Your task to perform on an android device: allow cookies in the chrome app Image 0: 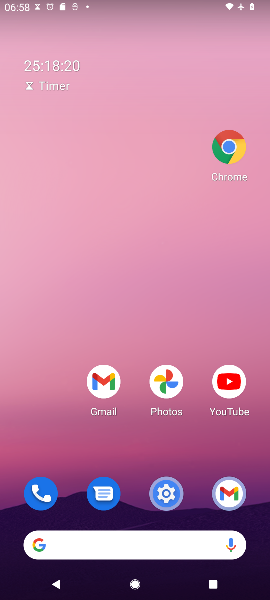
Step 0: press home button
Your task to perform on an android device: allow cookies in the chrome app Image 1: 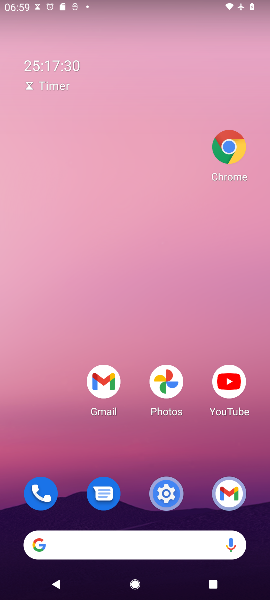
Step 1: click (230, 150)
Your task to perform on an android device: allow cookies in the chrome app Image 2: 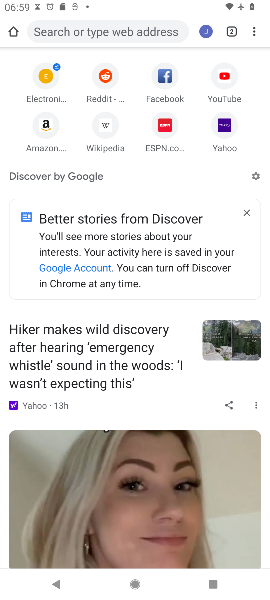
Step 2: drag from (249, 30) to (173, 312)
Your task to perform on an android device: allow cookies in the chrome app Image 3: 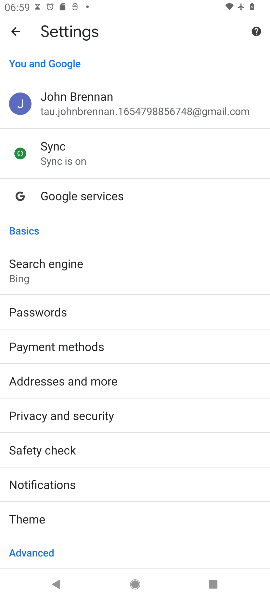
Step 3: drag from (202, 530) to (197, 78)
Your task to perform on an android device: allow cookies in the chrome app Image 4: 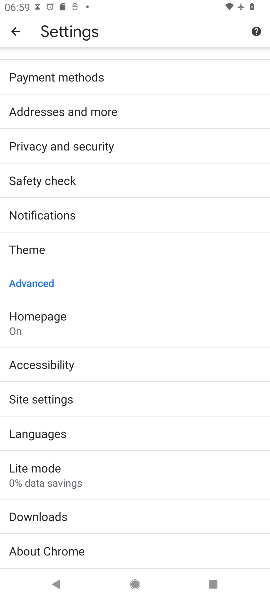
Step 4: click (32, 401)
Your task to perform on an android device: allow cookies in the chrome app Image 5: 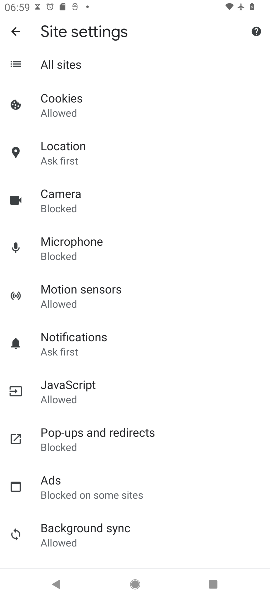
Step 5: click (67, 111)
Your task to perform on an android device: allow cookies in the chrome app Image 6: 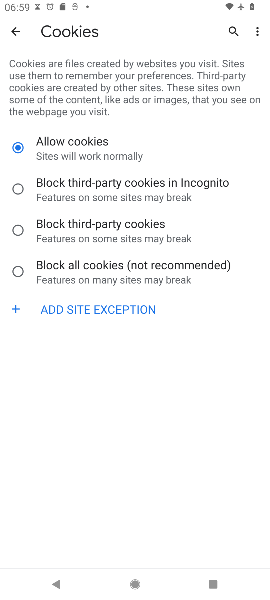
Step 6: task complete